Your task to perform on an android device: snooze an email in the gmail app Image 0: 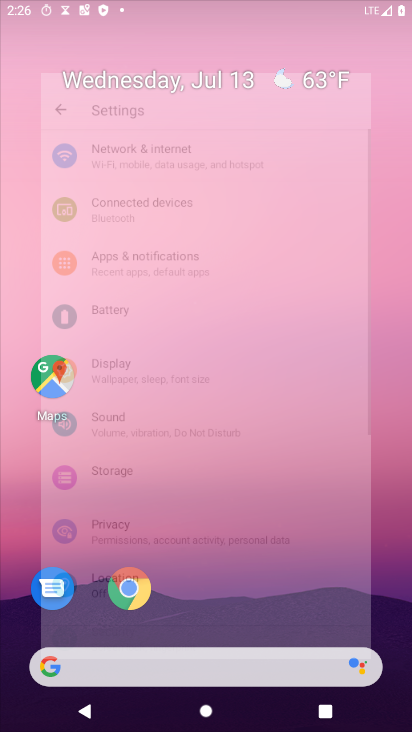
Step 0: drag from (192, 642) to (231, 70)
Your task to perform on an android device: snooze an email in the gmail app Image 1: 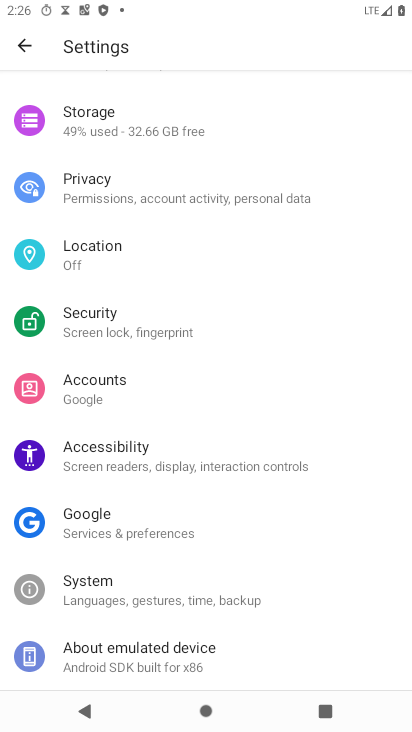
Step 1: press home button
Your task to perform on an android device: snooze an email in the gmail app Image 2: 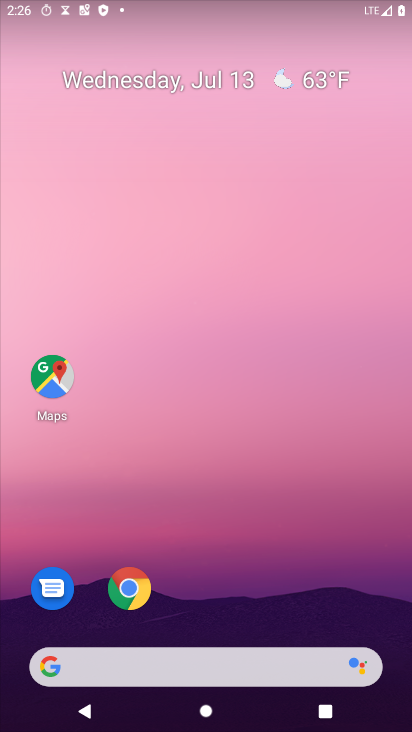
Step 2: drag from (210, 663) to (229, 48)
Your task to perform on an android device: snooze an email in the gmail app Image 3: 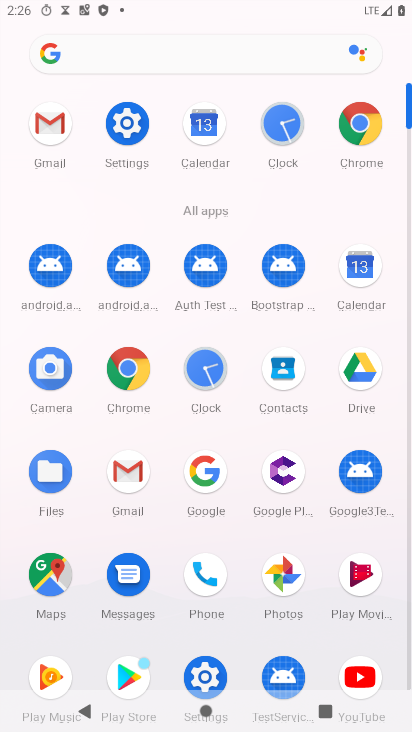
Step 3: click (116, 467)
Your task to perform on an android device: snooze an email in the gmail app Image 4: 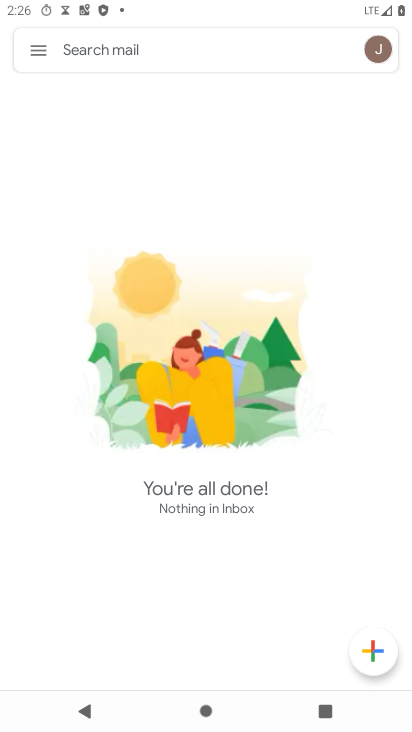
Step 4: click (38, 53)
Your task to perform on an android device: snooze an email in the gmail app Image 5: 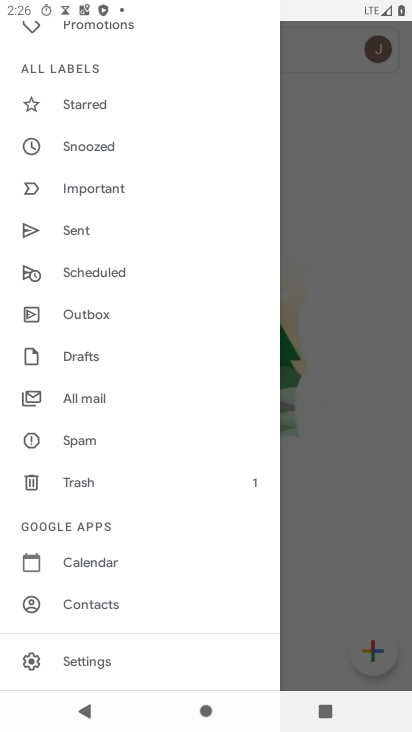
Step 5: drag from (124, 232) to (151, 495)
Your task to perform on an android device: snooze an email in the gmail app Image 6: 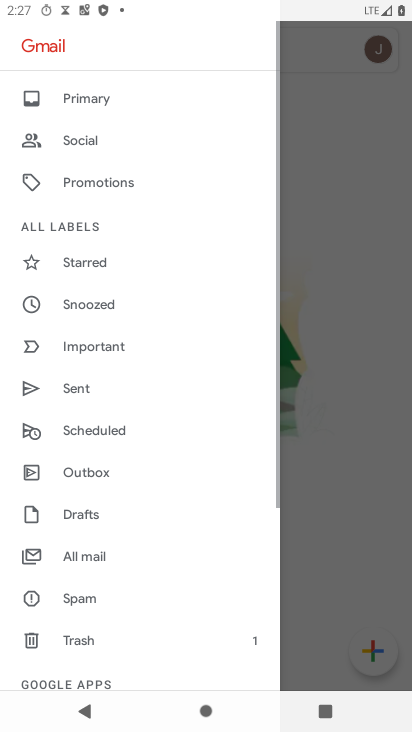
Step 6: click (108, 558)
Your task to perform on an android device: snooze an email in the gmail app Image 7: 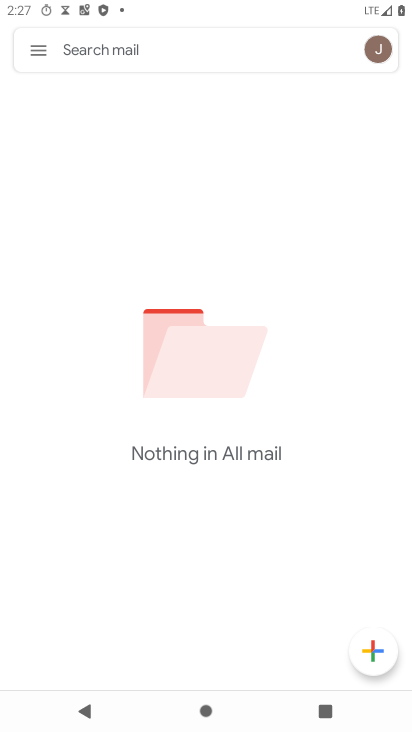
Step 7: task complete